Your task to perform on an android device: turn on bluetooth scan Image 0: 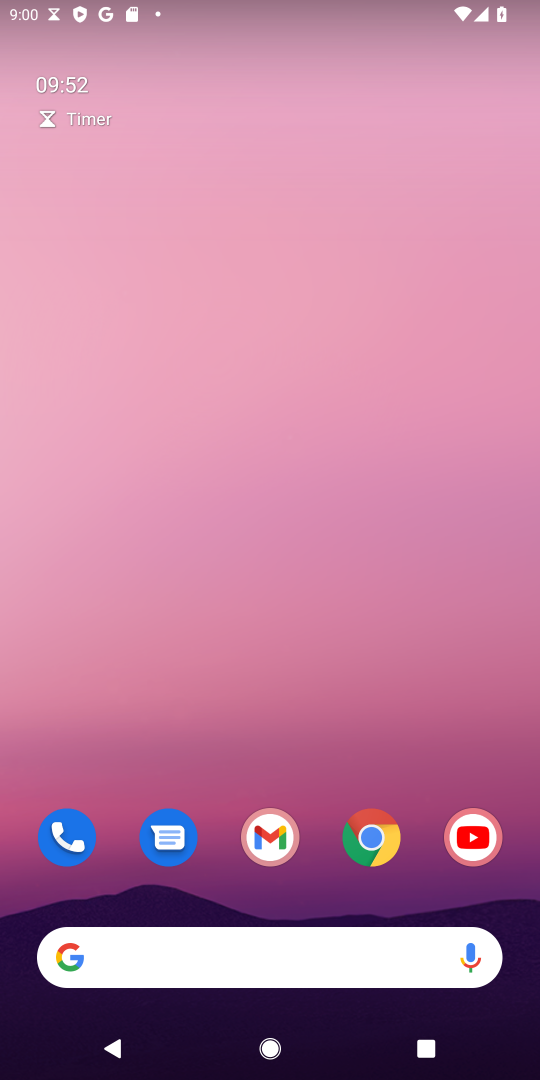
Step 0: drag from (310, 862) to (310, 44)
Your task to perform on an android device: turn on bluetooth scan Image 1: 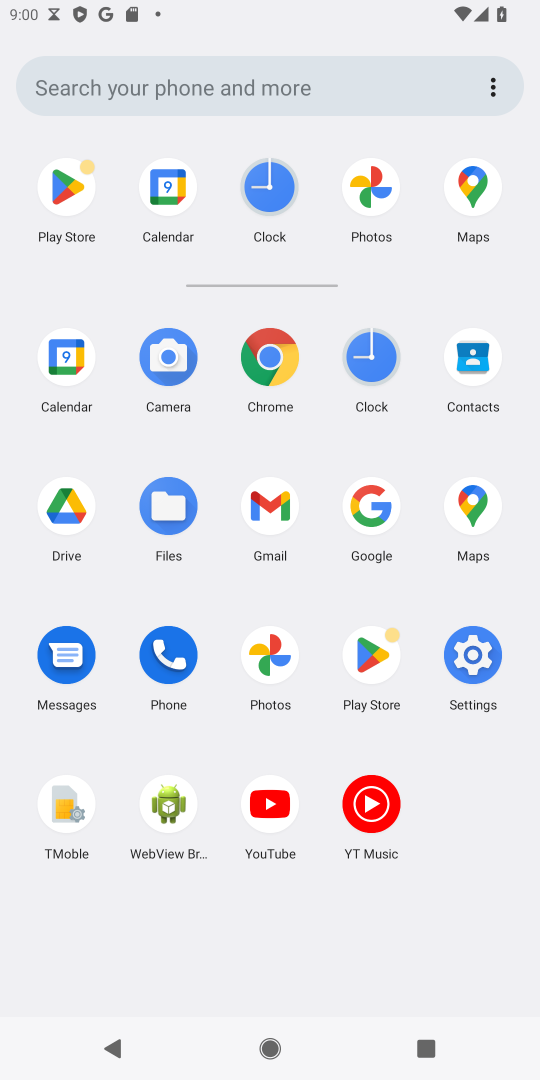
Step 1: click (477, 648)
Your task to perform on an android device: turn on bluetooth scan Image 2: 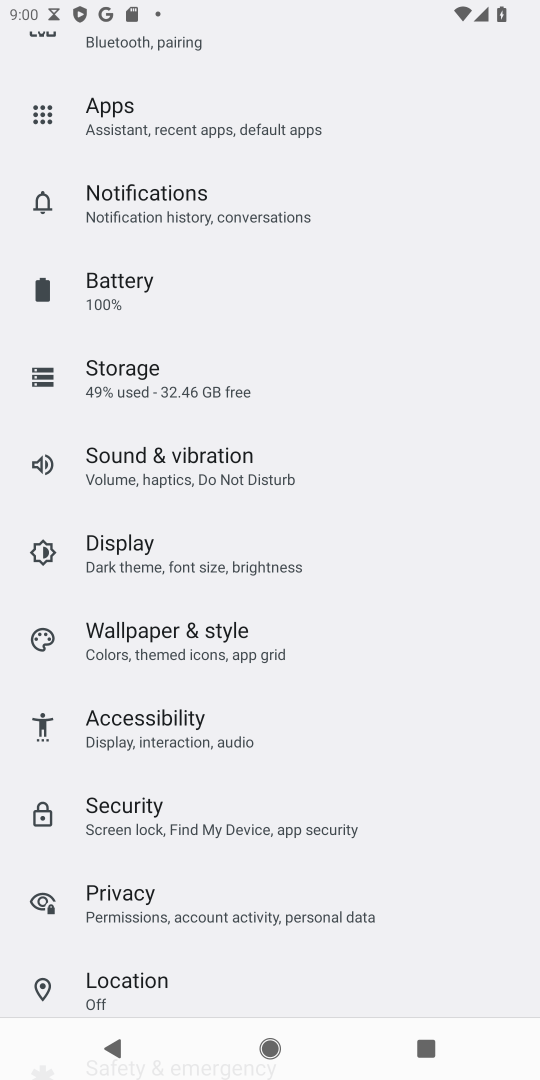
Step 2: click (117, 985)
Your task to perform on an android device: turn on bluetooth scan Image 3: 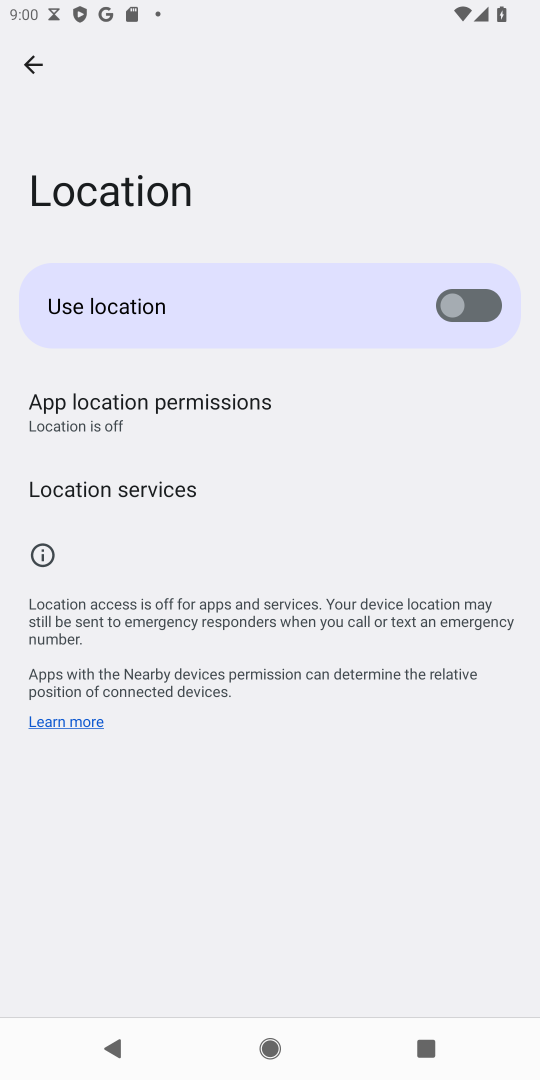
Step 3: click (163, 480)
Your task to perform on an android device: turn on bluetooth scan Image 4: 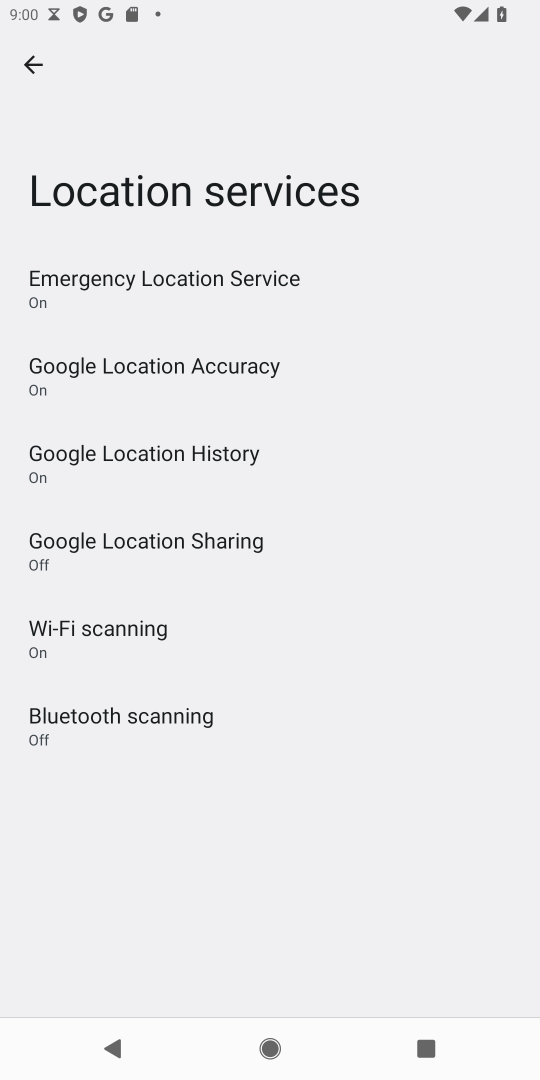
Step 4: click (136, 711)
Your task to perform on an android device: turn on bluetooth scan Image 5: 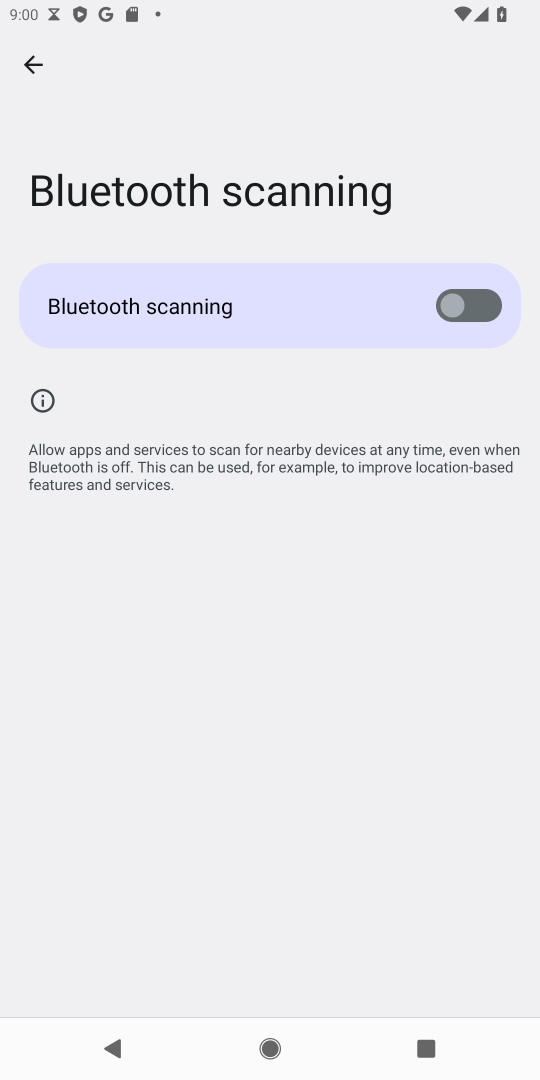
Step 5: click (475, 293)
Your task to perform on an android device: turn on bluetooth scan Image 6: 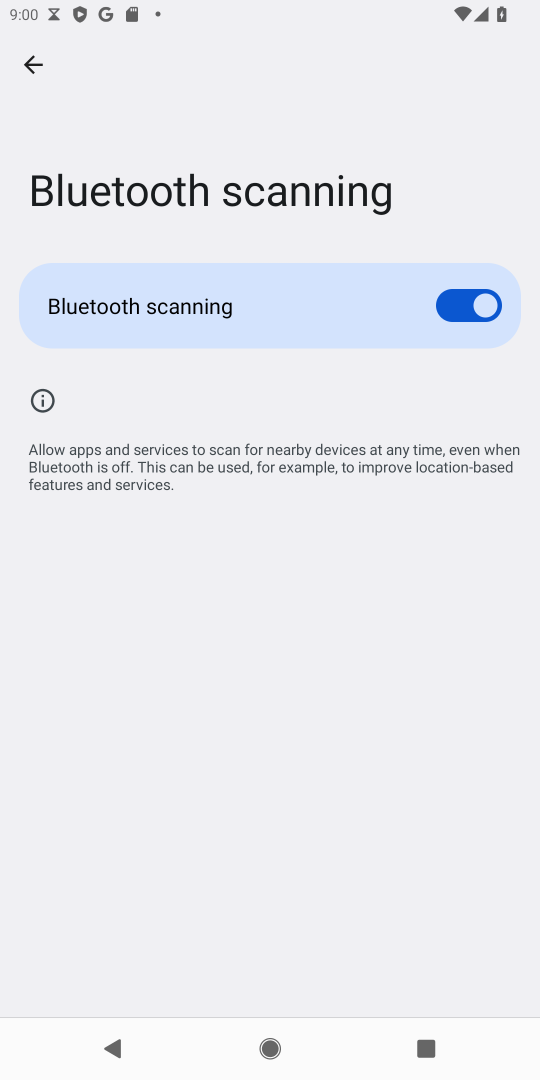
Step 6: task complete